Your task to perform on an android device: see creations saved in the google photos Image 0: 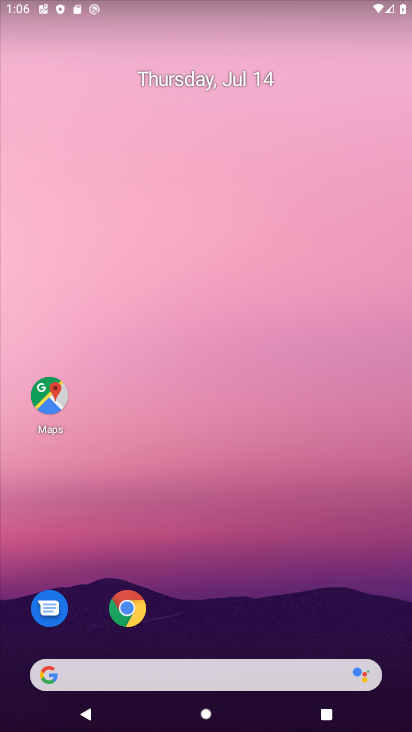
Step 0: drag from (386, 656) to (370, 175)
Your task to perform on an android device: see creations saved in the google photos Image 1: 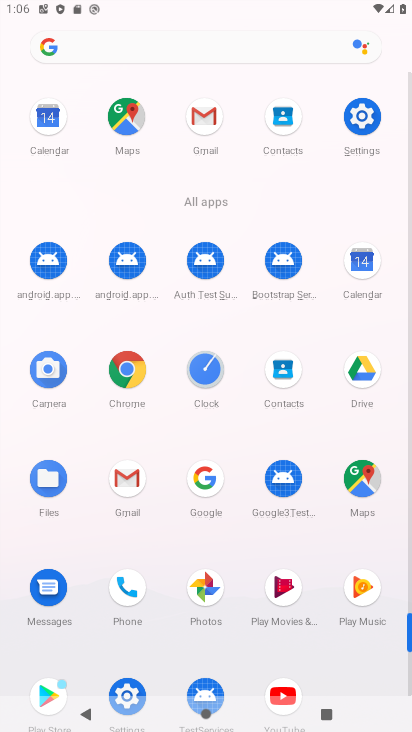
Step 1: click (205, 587)
Your task to perform on an android device: see creations saved in the google photos Image 2: 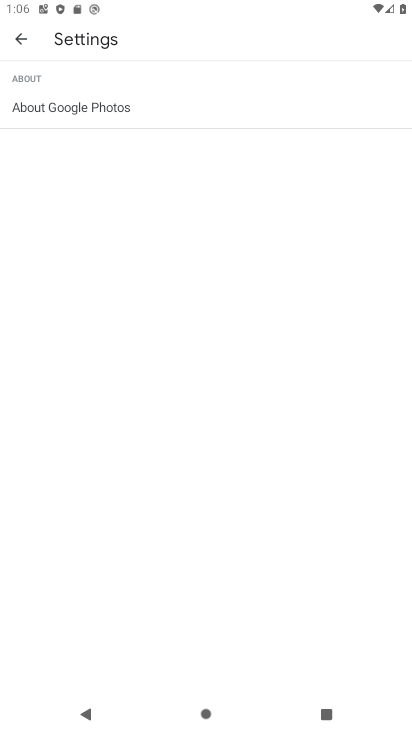
Step 2: press back button
Your task to perform on an android device: see creations saved in the google photos Image 3: 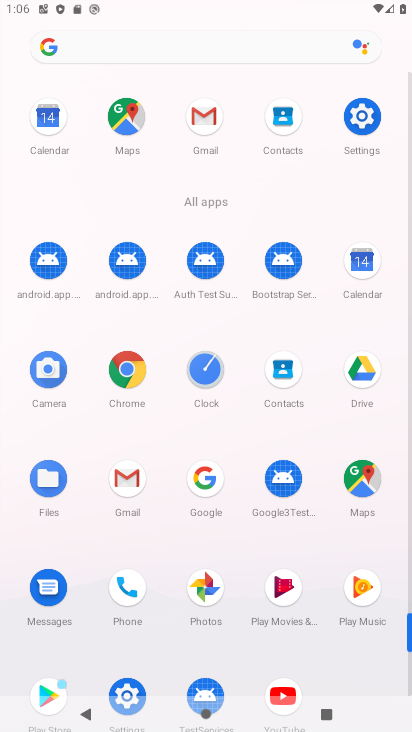
Step 3: click (203, 586)
Your task to perform on an android device: see creations saved in the google photos Image 4: 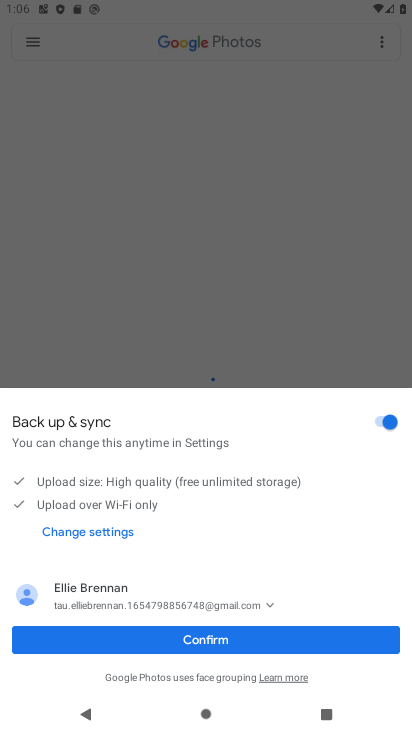
Step 4: click (206, 635)
Your task to perform on an android device: see creations saved in the google photos Image 5: 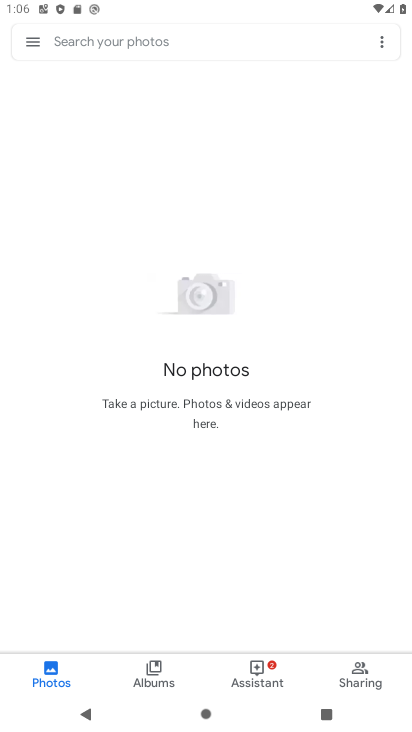
Step 5: task complete